Your task to perform on an android device: check data usage Image 0: 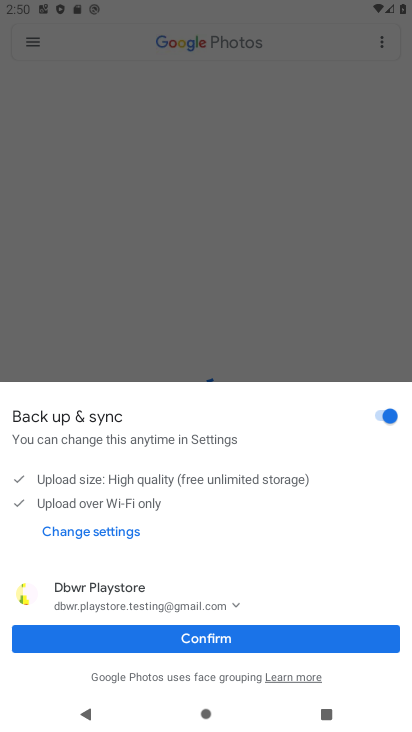
Step 0: press home button
Your task to perform on an android device: check data usage Image 1: 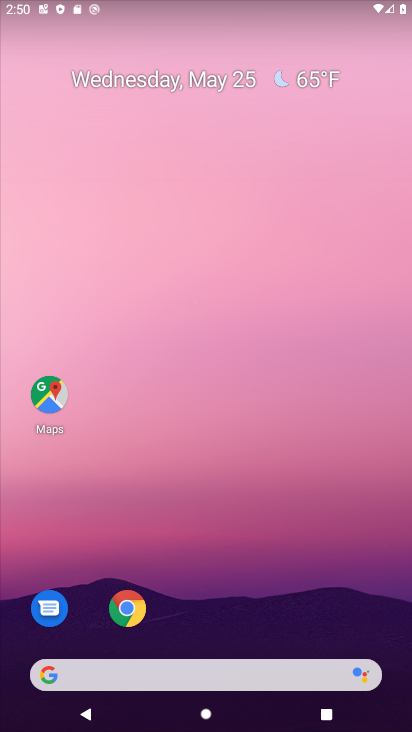
Step 1: drag from (217, 639) to (250, 7)
Your task to perform on an android device: check data usage Image 2: 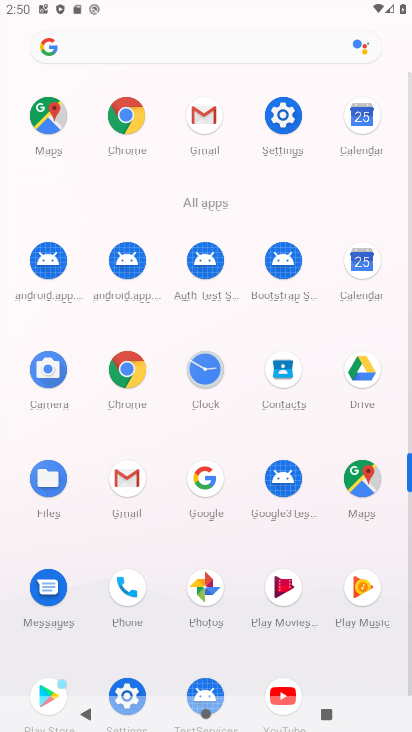
Step 2: click (280, 117)
Your task to perform on an android device: check data usage Image 3: 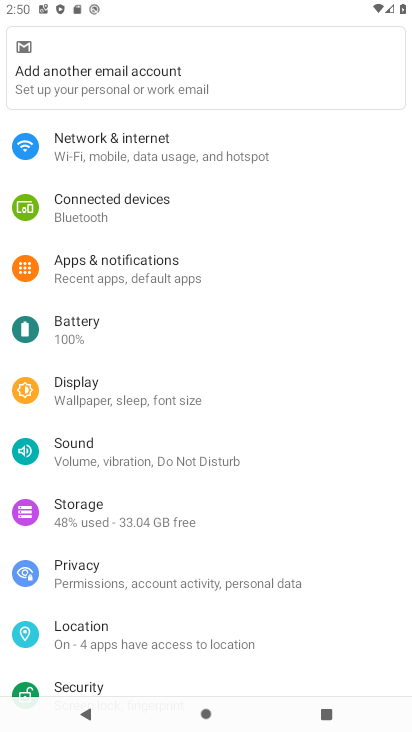
Step 3: click (127, 152)
Your task to perform on an android device: check data usage Image 4: 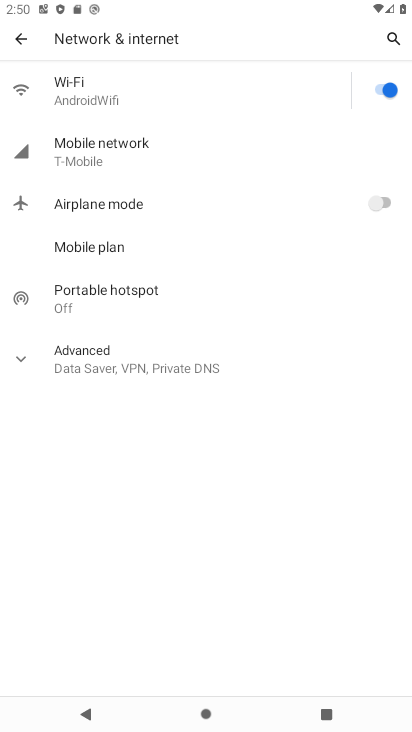
Step 4: click (75, 158)
Your task to perform on an android device: check data usage Image 5: 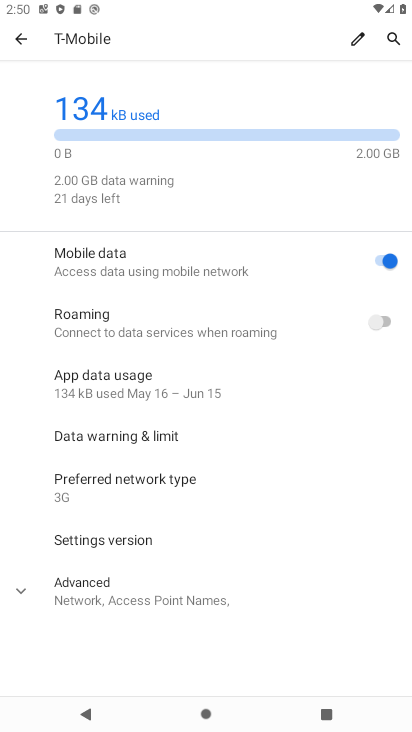
Step 5: click (94, 389)
Your task to perform on an android device: check data usage Image 6: 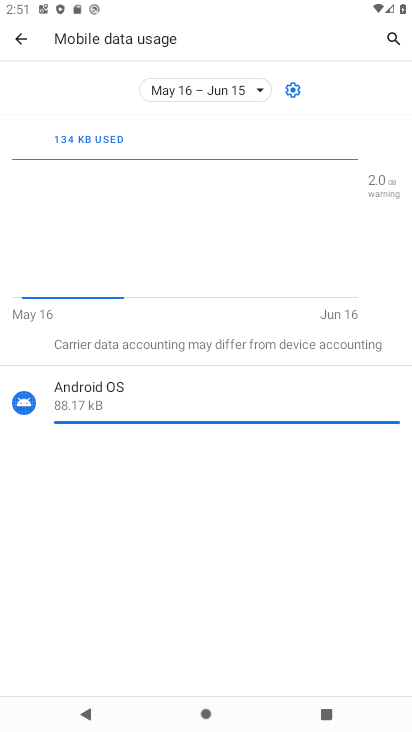
Step 6: task complete